Your task to perform on an android device: turn off smart reply in the gmail app Image 0: 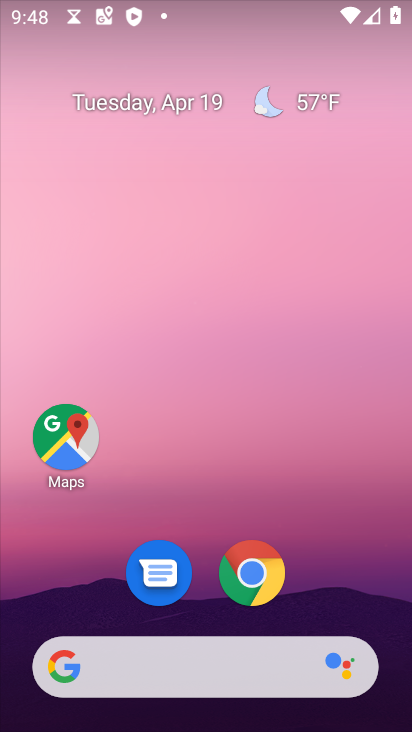
Step 0: drag from (320, 592) to (303, 0)
Your task to perform on an android device: turn off smart reply in the gmail app Image 1: 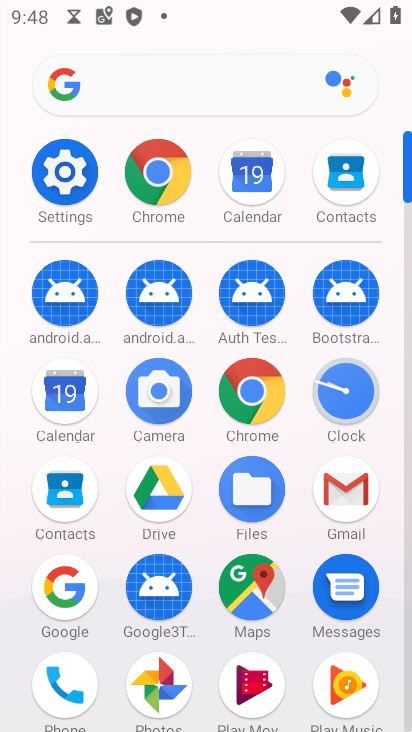
Step 1: click (341, 478)
Your task to perform on an android device: turn off smart reply in the gmail app Image 2: 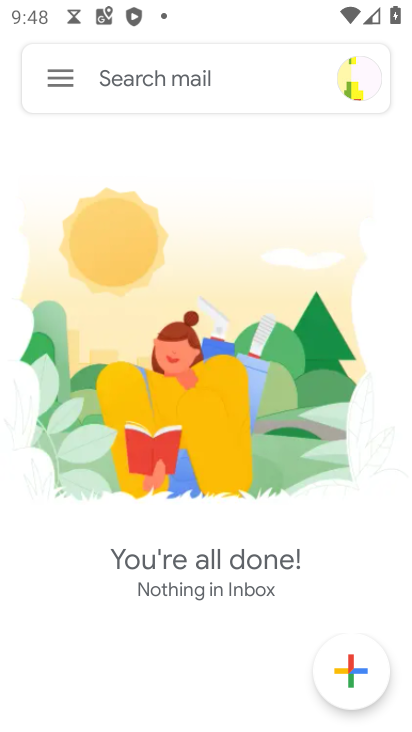
Step 2: click (63, 75)
Your task to perform on an android device: turn off smart reply in the gmail app Image 3: 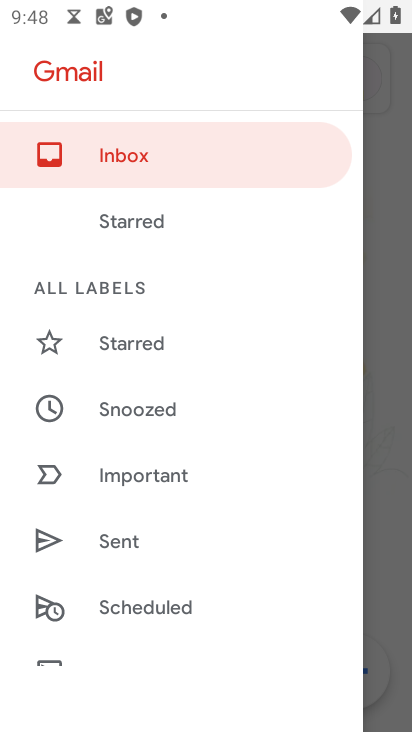
Step 3: drag from (182, 623) to (189, 141)
Your task to perform on an android device: turn off smart reply in the gmail app Image 4: 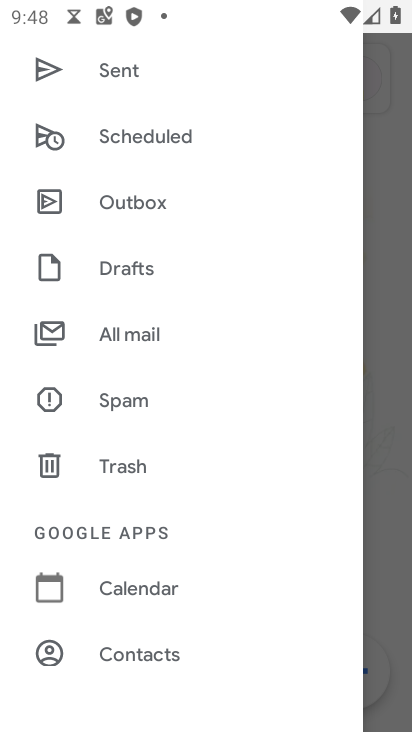
Step 4: drag from (204, 576) to (202, 235)
Your task to perform on an android device: turn off smart reply in the gmail app Image 5: 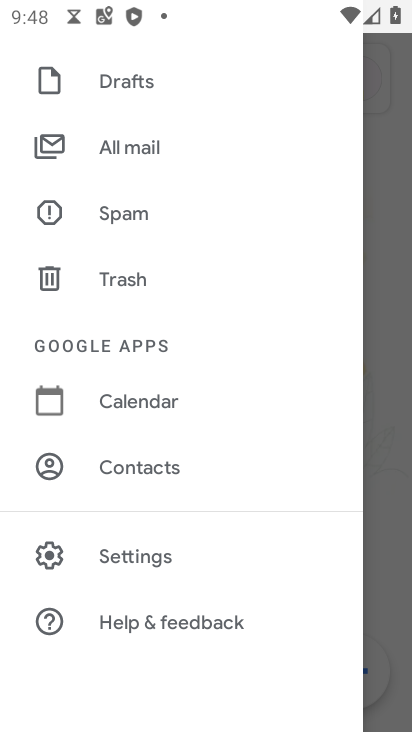
Step 5: click (121, 555)
Your task to perform on an android device: turn off smart reply in the gmail app Image 6: 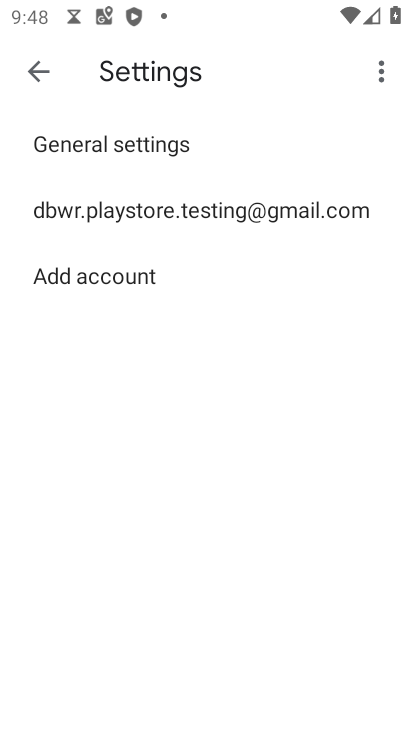
Step 6: click (186, 202)
Your task to perform on an android device: turn off smart reply in the gmail app Image 7: 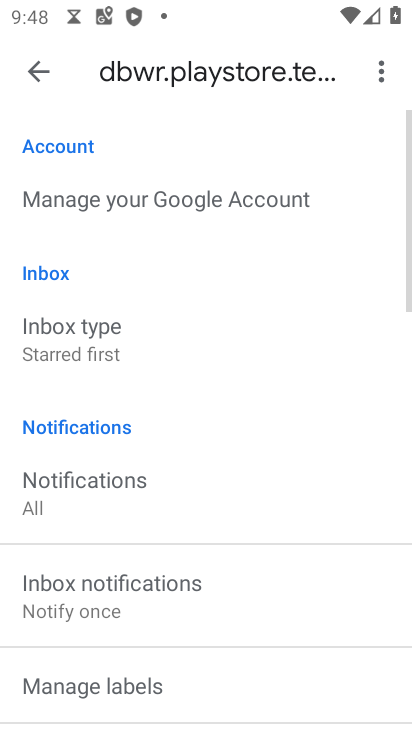
Step 7: drag from (178, 623) to (199, 145)
Your task to perform on an android device: turn off smart reply in the gmail app Image 8: 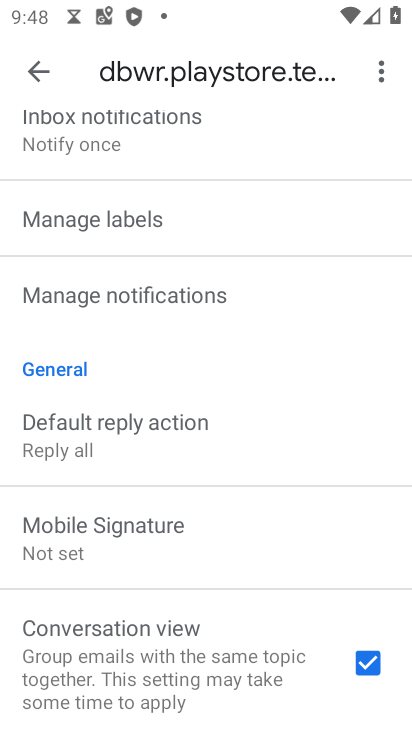
Step 8: drag from (297, 556) to (295, 146)
Your task to perform on an android device: turn off smart reply in the gmail app Image 9: 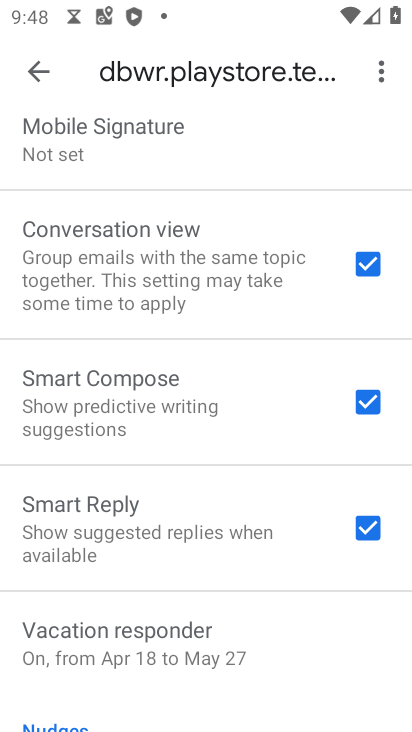
Step 9: click (370, 528)
Your task to perform on an android device: turn off smart reply in the gmail app Image 10: 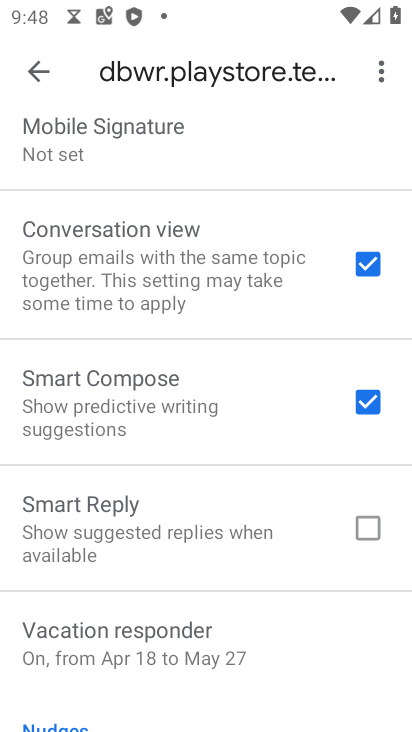
Step 10: task complete